Your task to perform on an android device: show emergency info Image 0: 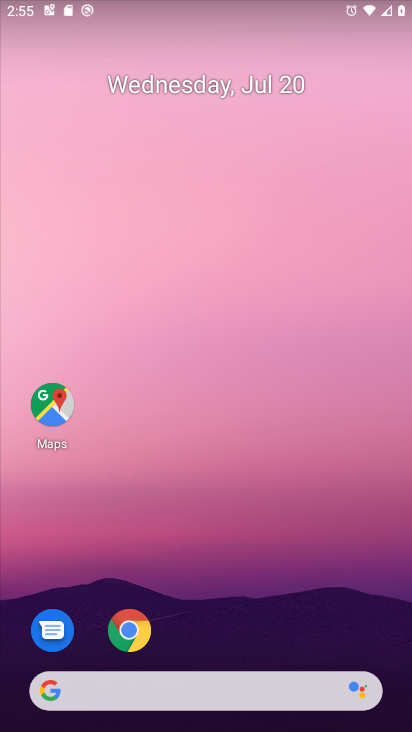
Step 0: drag from (250, 657) to (282, 130)
Your task to perform on an android device: show emergency info Image 1: 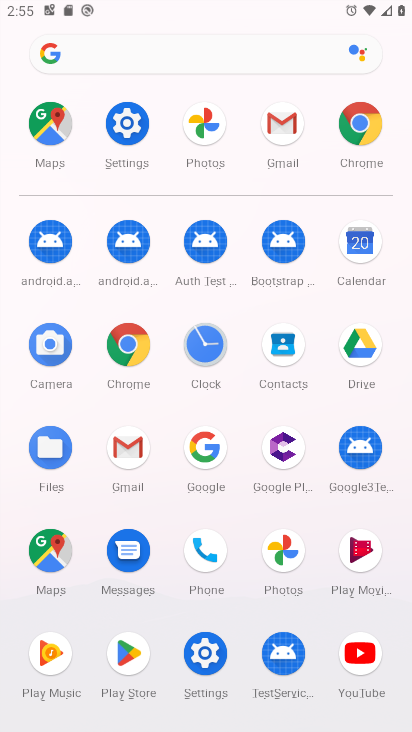
Step 1: click (132, 147)
Your task to perform on an android device: show emergency info Image 2: 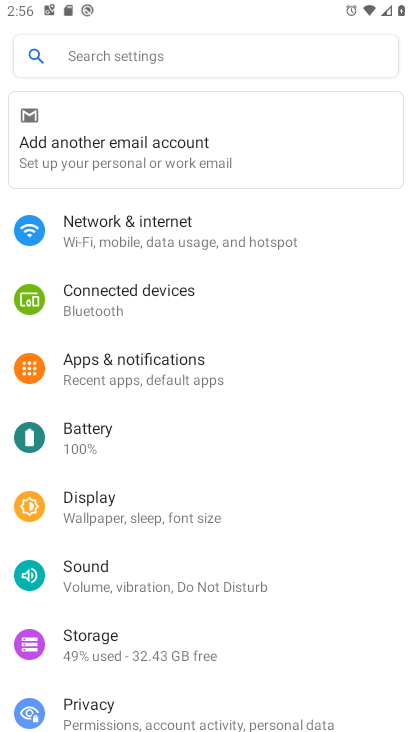
Step 2: drag from (147, 605) to (187, 273)
Your task to perform on an android device: show emergency info Image 3: 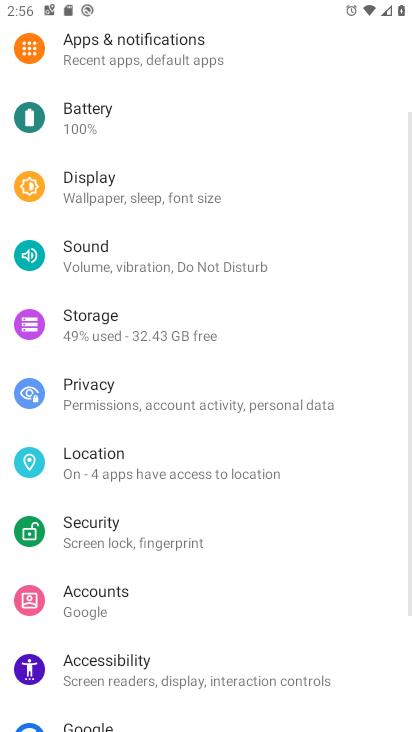
Step 3: drag from (155, 598) to (203, 298)
Your task to perform on an android device: show emergency info Image 4: 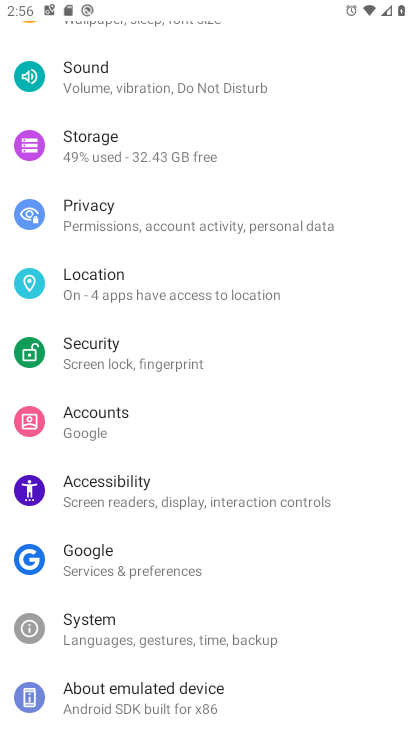
Step 4: drag from (157, 628) to (203, 345)
Your task to perform on an android device: show emergency info Image 5: 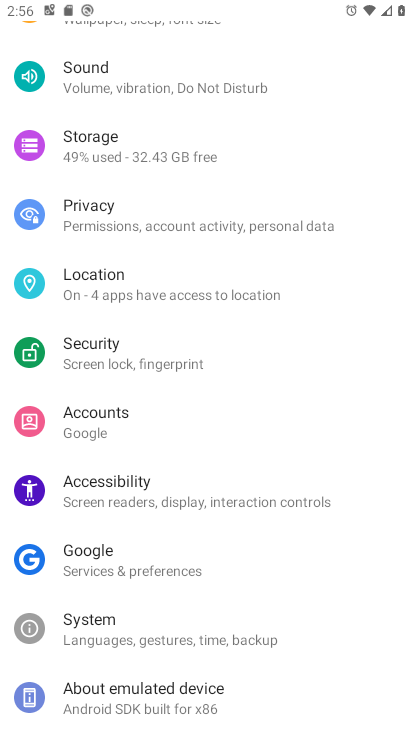
Step 5: click (173, 692)
Your task to perform on an android device: show emergency info Image 6: 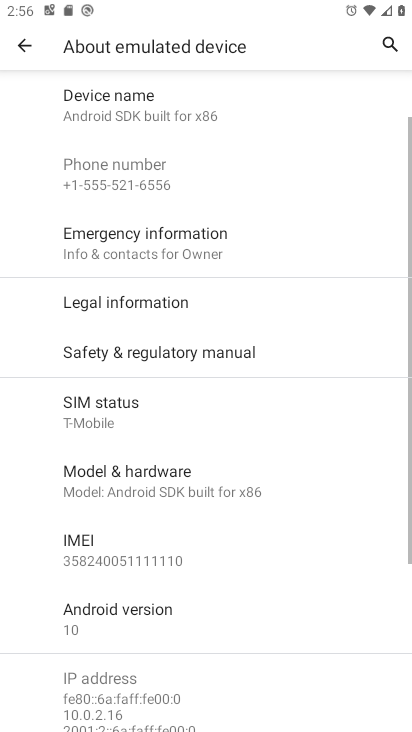
Step 6: click (180, 254)
Your task to perform on an android device: show emergency info Image 7: 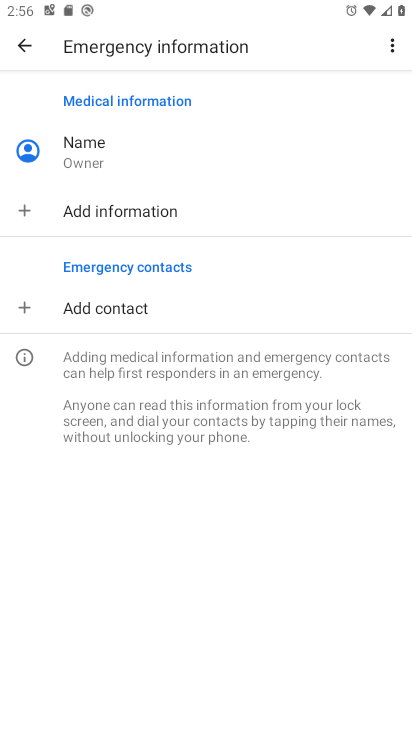
Step 7: task complete